Your task to perform on an android device: turn smart compose on in the gmail app Image 0: 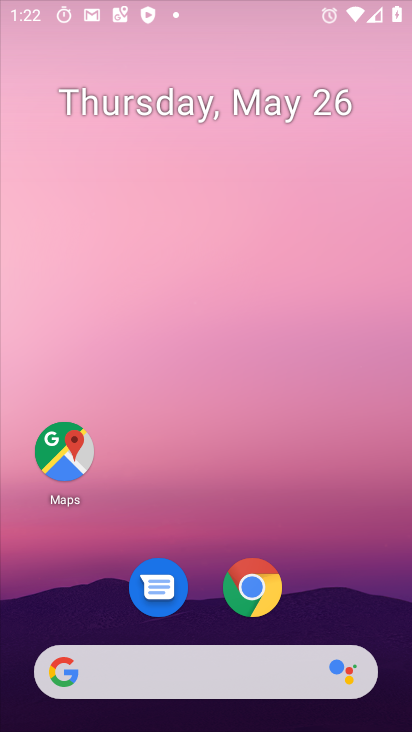
Step 0: press home button
Your task to perform on an android device: turn smart compose on in the gmail app Image 1: 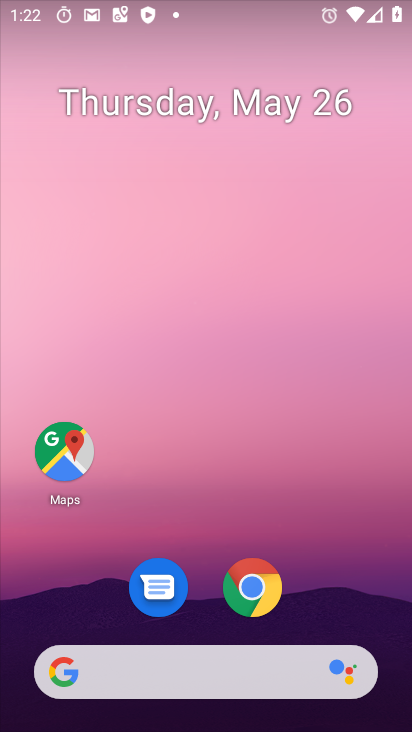
Step 1: drag from (283, 697) to (297, 59)
Your task to perform on an android device: turn smart compose on in the gmail app Image 2: 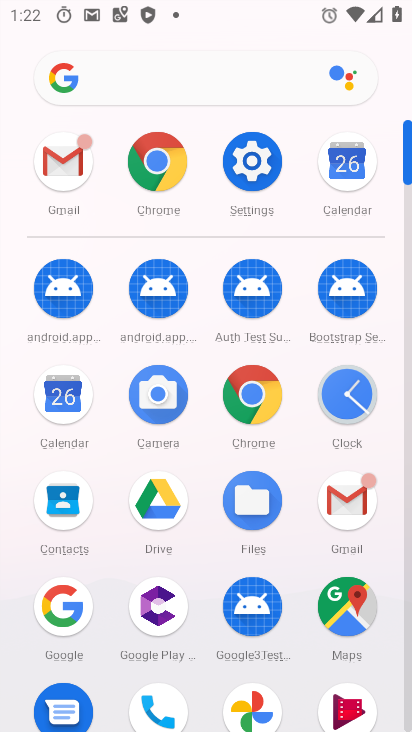
Step 2: click (50, 177)
Your task to perform on an android device: turn smart compose on in the gmail app Image 3: 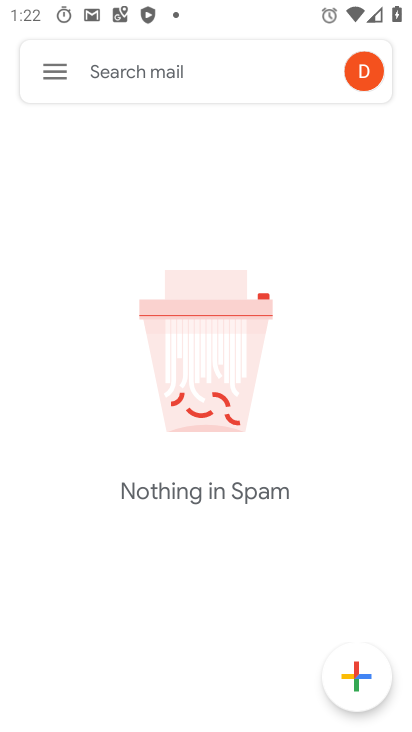
Step 3: click (64, 87)
Your task to perform on an android device: turn smart compose on in the gmail app Image 4: 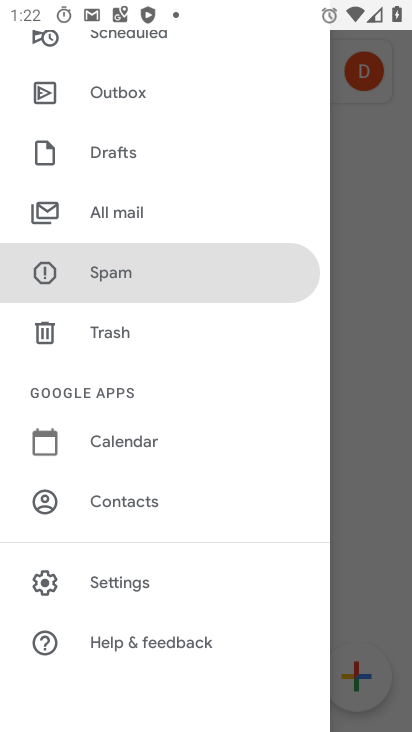
Step 4: click (129, 586)
Your task to perform on an android device: turn smart compose on in the gmail app Image 5: 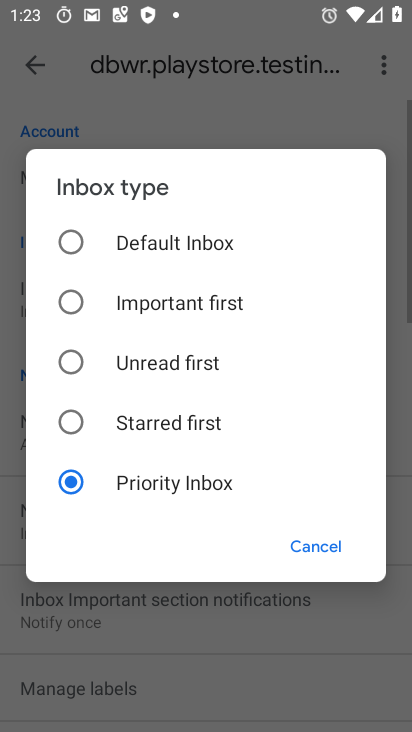
Step 5: click (308, 529)
Your task to perform on an android device: turn smart compose on in the gmail app Image 6: 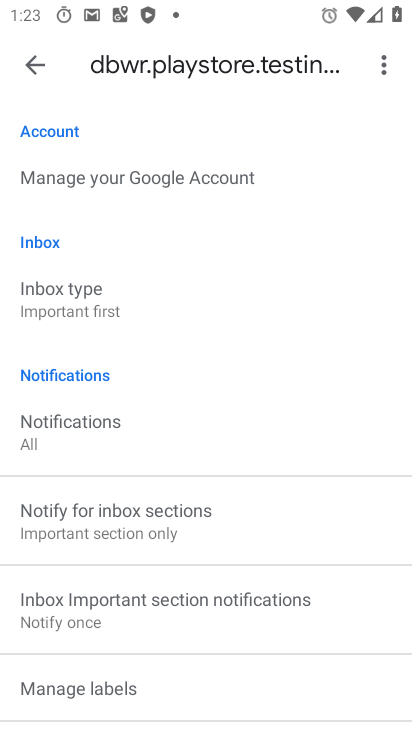
Step 6: drag from (253, 586) to (285, 181)
Your task to perform on an android device: turn smart compose on in the gmail app Image 7: 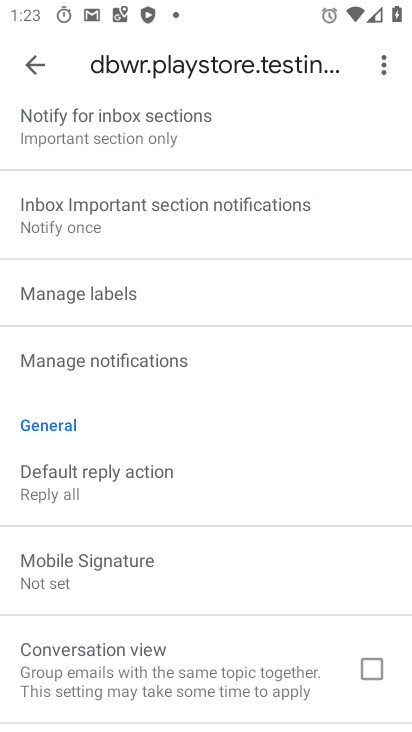
Step 7: drag from (251, 554) to (274, 172)
Your task to perform on an android device: turn smart compose on in the gmail app Image 8: 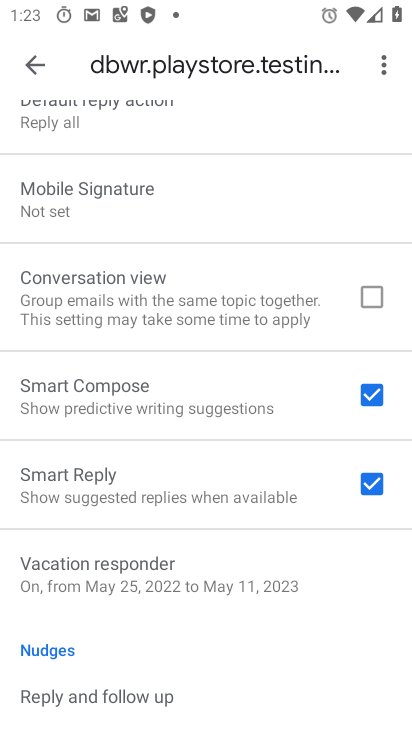
Step 8: click (354, 395)
Your task to perform on an android device: turn smart compose on in the gmail app Image 9: 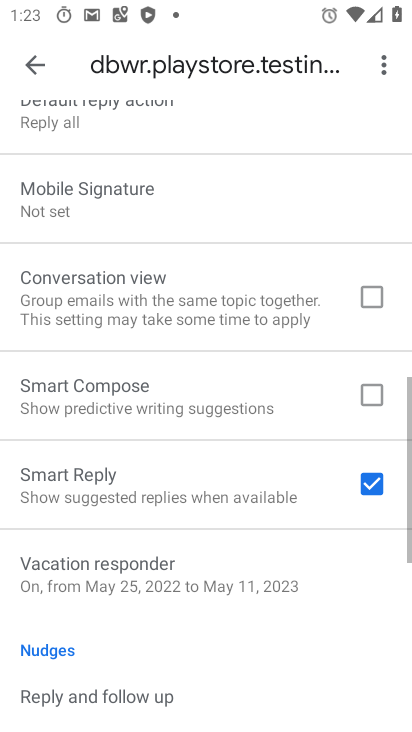
Step 9: click (353, 395)
Your task to perform on an android device: turn smart compose on in the gmail app Image 10: 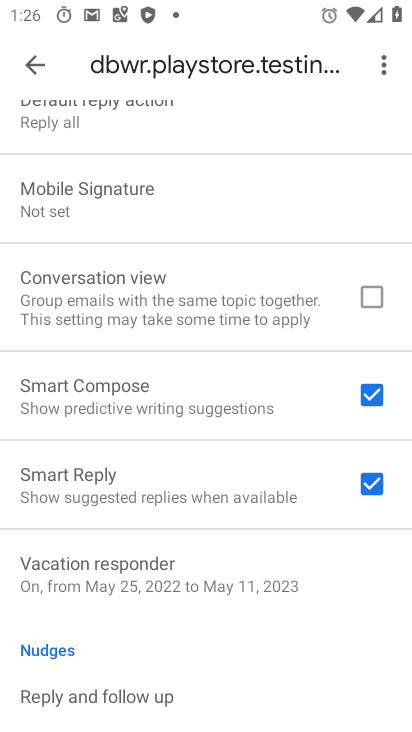
Step 10: task complete